Your task to perform on an android device: Is it going to rain this weekend? Image 0: 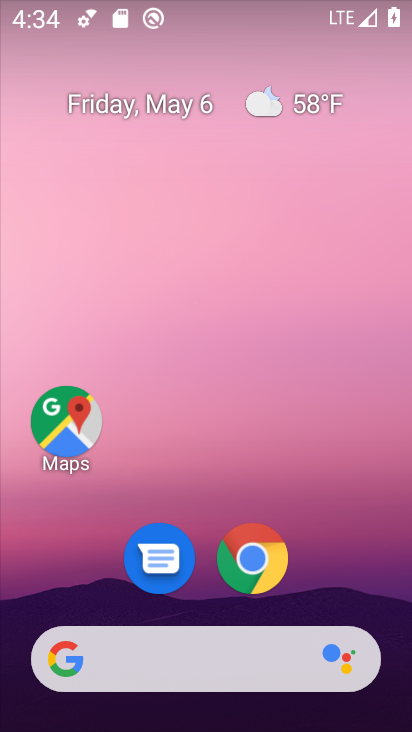
Step 0: drag from (294, 608) to (258, 0)
Your task to perform on an android device: Is it going to rain this weekend? Image 1: 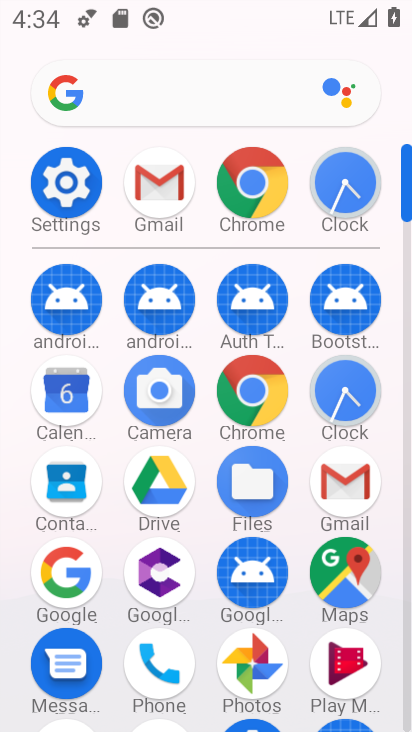
Step 1: drag from (209, 638) to (205, 186)
Your task to perform on an android device: Is it going to rain this weekend? Image 2: 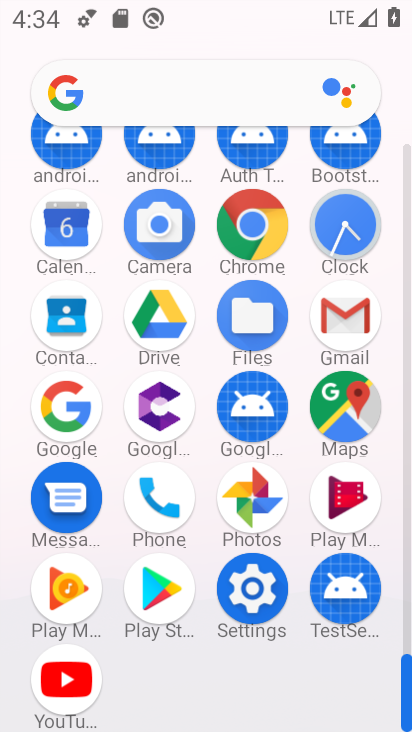
Step 2: click (254, 599)
Your task to perform on an android device: Is it going to rain this weekend? Image 3: 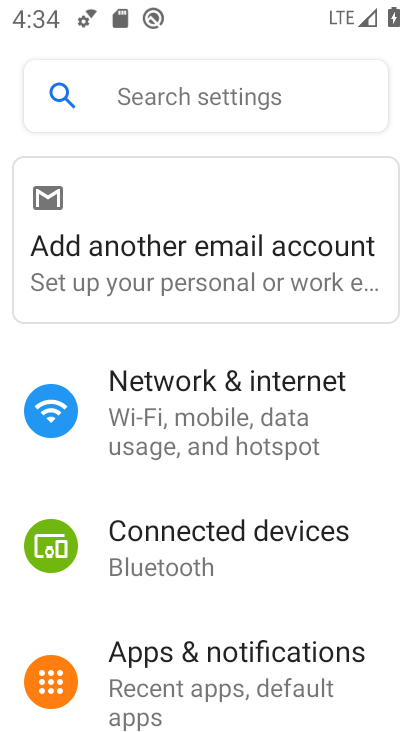
Step 3: press home button
Your task to perform on an android device: Is it going to rain this weekend? Image 4: 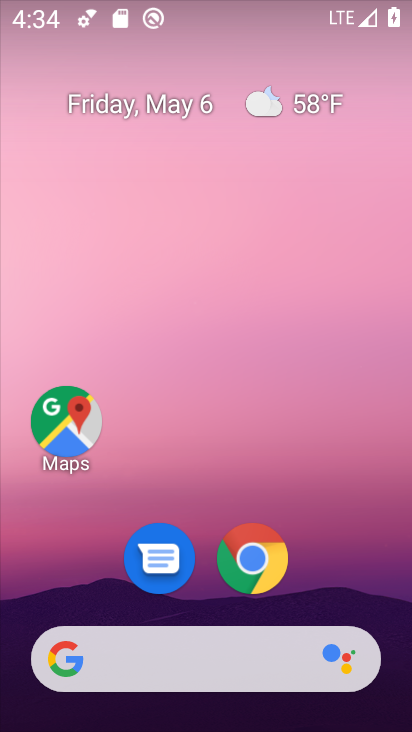
Step 4: drag from (303, 644) to (302, 62)
Your task to perform on an android device: Is it going to rain this weekend? Image 5: 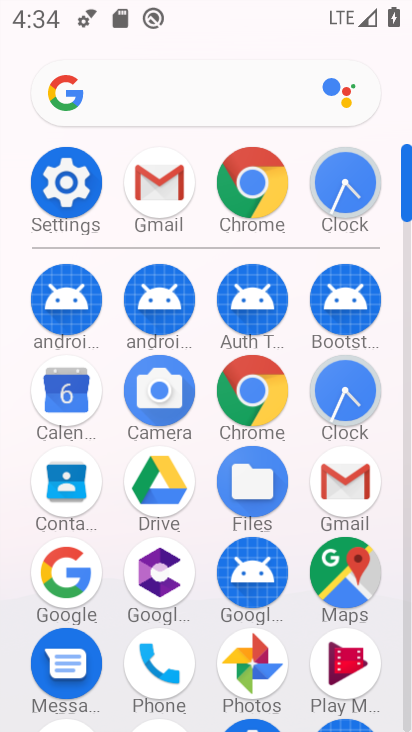
Step 5: click (260, 392)
Your task to perform on an android device: Is it going to rain this weekend? Image 6: 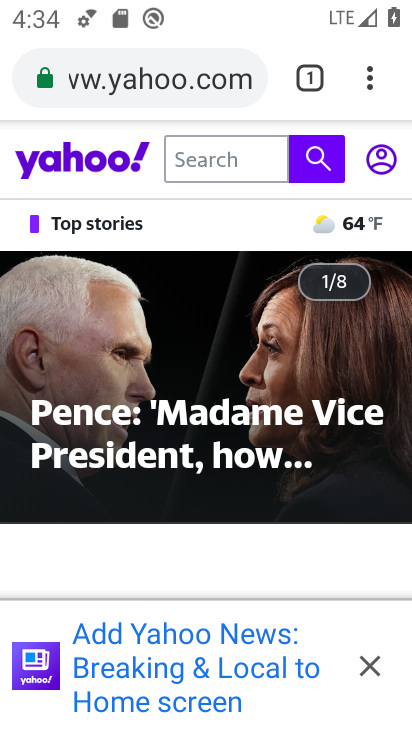
Step 6: click (242, 90)
Your task to perform on an android device: Is it going to rain this weekend? Image 7: 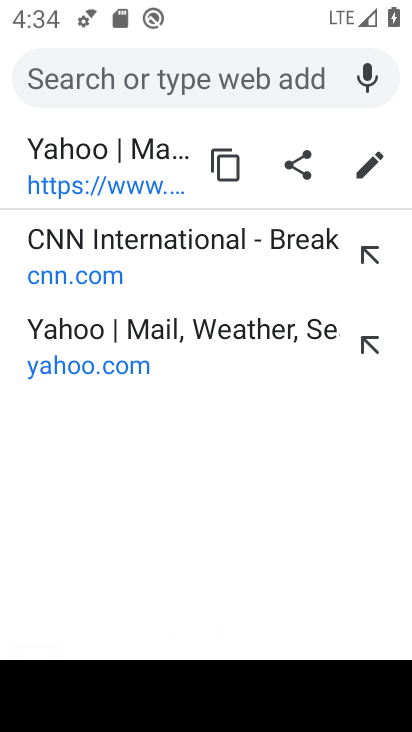
Step 7: type "rain this weekend"
Your task to perform on an android device: Is it going to rain this weekend? Image 8: 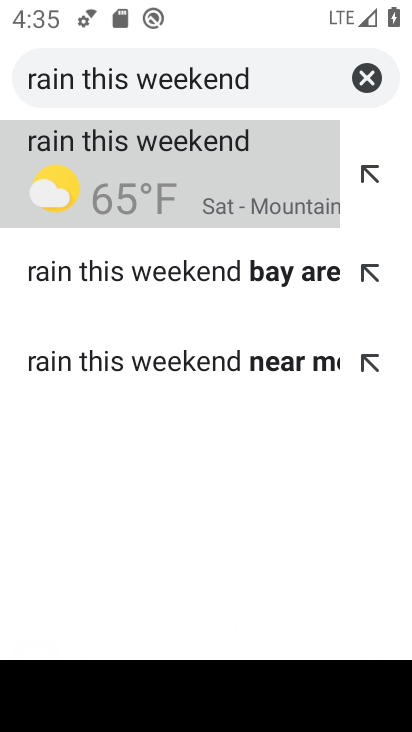
Step 8: click (257, 86)
Your task to perform on an android device: Is it going to rain this weekend? Image 9: 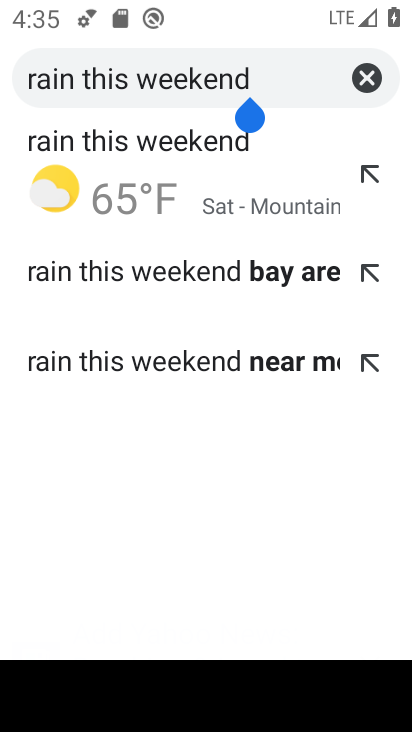
Step 9: click (320, 200)
Your task to perform on an android device: Is it going to rain this weekend? Image 10: 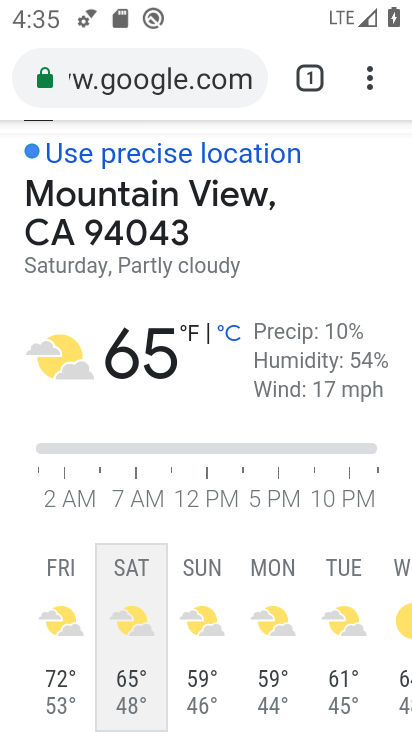
Step 10: task complete